Your task to perform on an android device: delete browsing data in the chrome app Image 0: 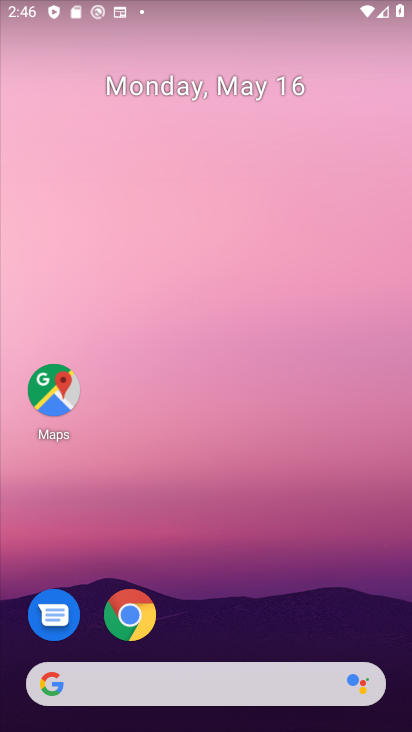
Step 0: click (126, 617)
Your task to perform on an android device: delete browsing data in the chrome app Image 1: 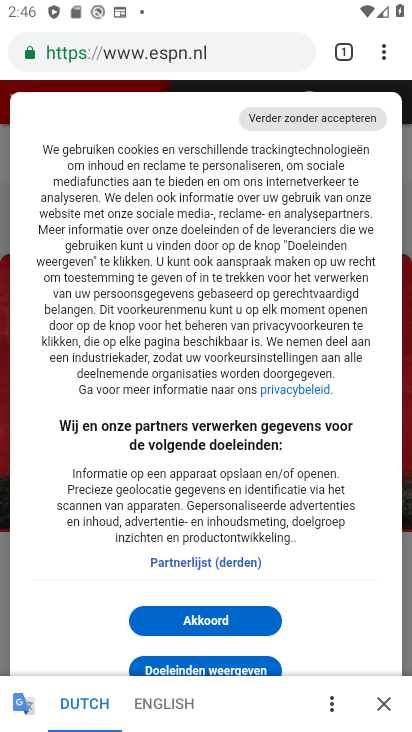
Step 1: click (384, 53)
Your task to perform on an android device: delete browsing data in the chrome app Image 2: 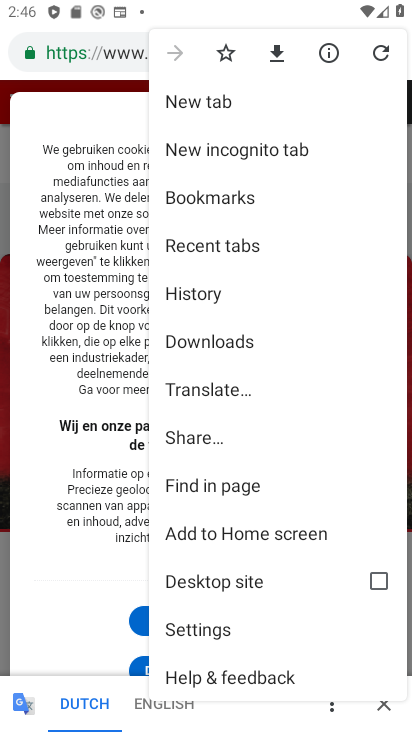
Step 2: click (217, 629)
Your task to perform on an android device: delete browsing data in the chrome app Image 3: 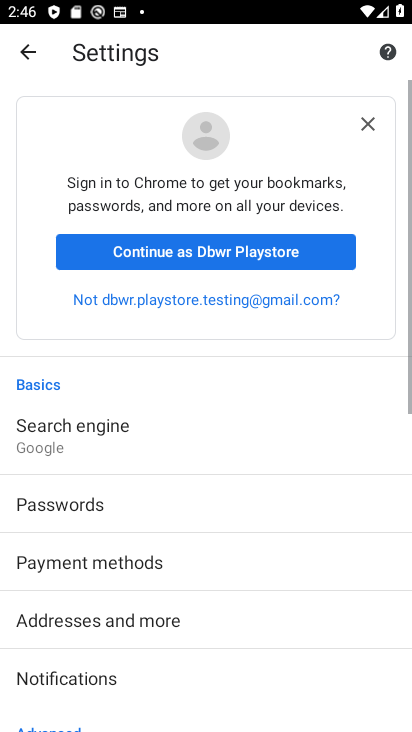
Step 3: drag from (204, 619) to (228, 260)
Your task to perform on an android device: delete browsing data in the chrome app Image 4: 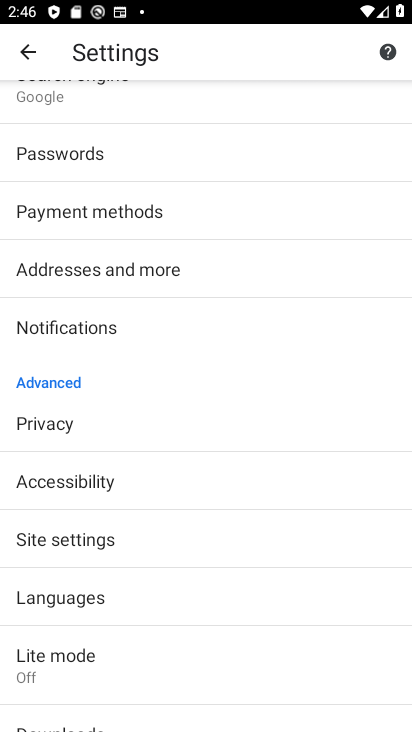
Step 4: click (36, 420)
Your task to perform on an android device: delete browsing data in the chrome app Image 5: 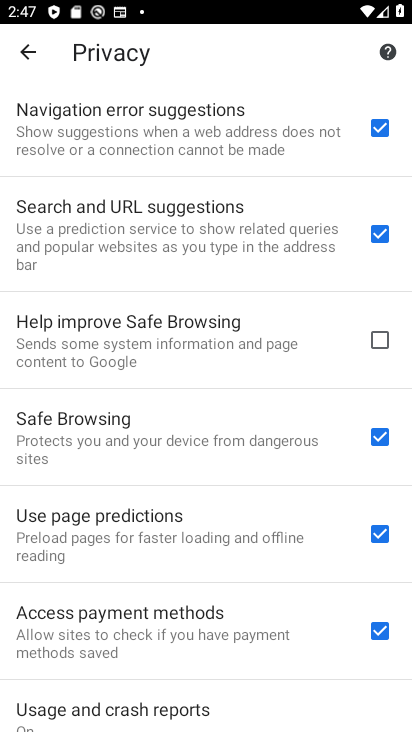
Step 5: drag from (227, 521) to (196, 123)
Your task to perform on an android device: delete browsing data in the chrome app Image 6: 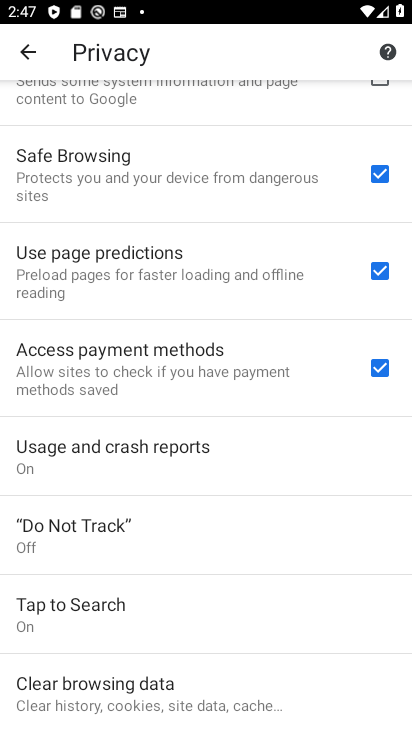
Step 6: drag from (100, 557) to (97, 218)
Your task to perform on an android device: delete browsing data in the chrome app Image 7: 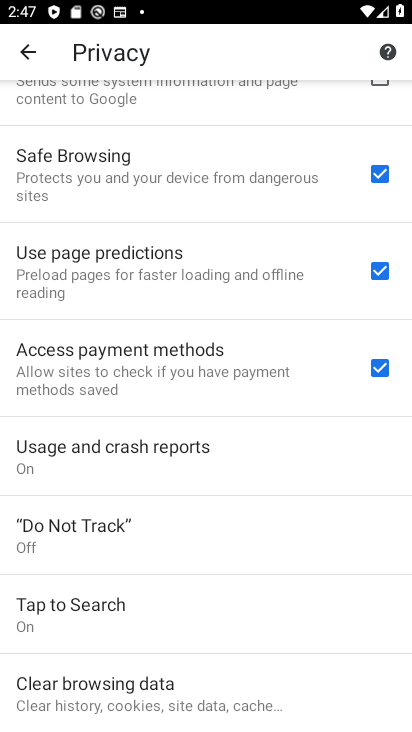
Step 7: click (85, 688)
Your task to perform on an android device: delete browsing data in the chrome app Image 8: 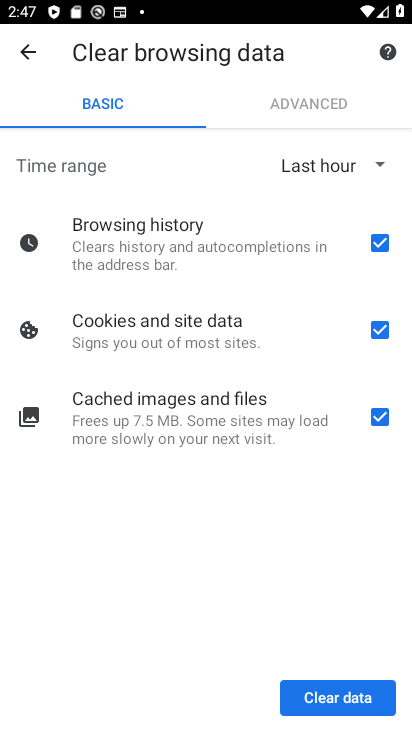
Step 8: click (371, 417)
Your task to perform on an android device: delete browsing data in the chrome app Image 9: 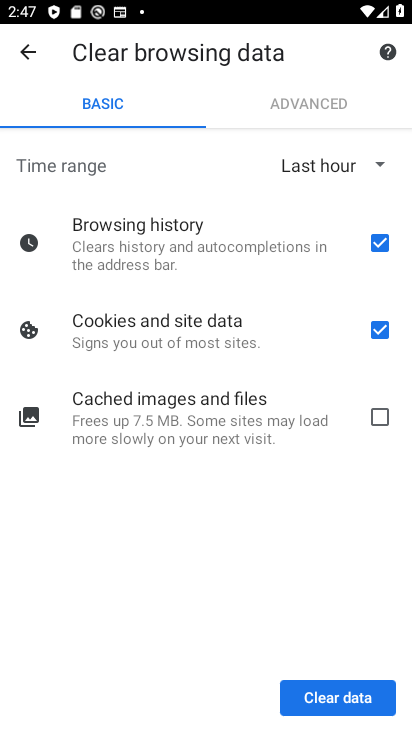
Step 9: click (379, 328)
Your task to perform on an android device: delete browsing data in the chrome app Image 10: 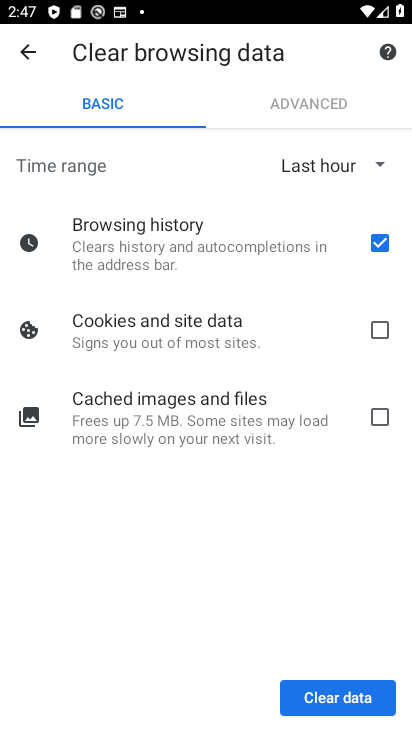
Step 10: click (351, 696)
Your task to perform on an android device: delete browsing data in the chrome app Image 11: 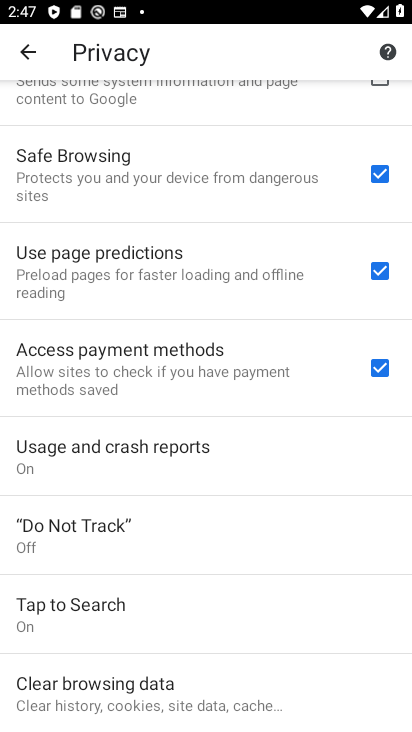
Step 11: task complete